Your task to perform on an android device: turn on the 24-hour format for clock Image 0: 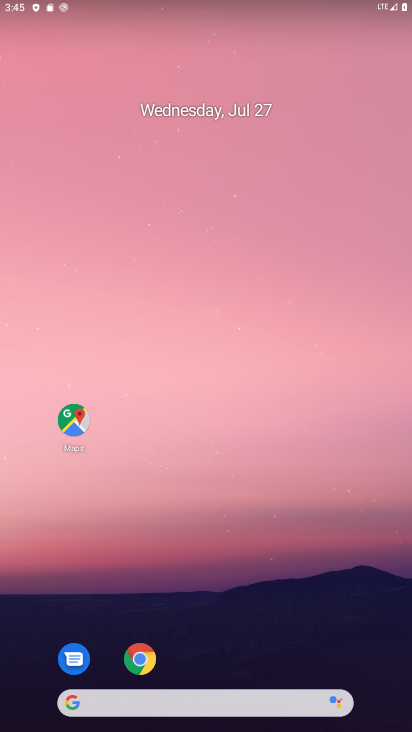
Step 0: drag from (246, 677) to (283, 19)
Your task to perform on an android device: turn on the 24-hour format for clock Image 1: 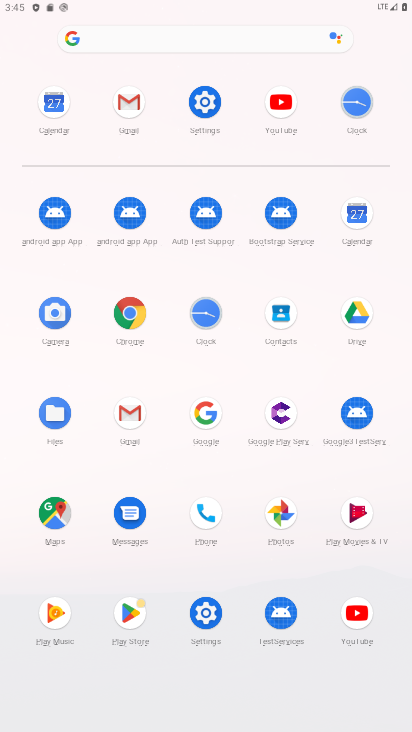
Step 1: click (356, 109)
Your task to perform on an android device: turn on the 24-hour format for clock Image 2: 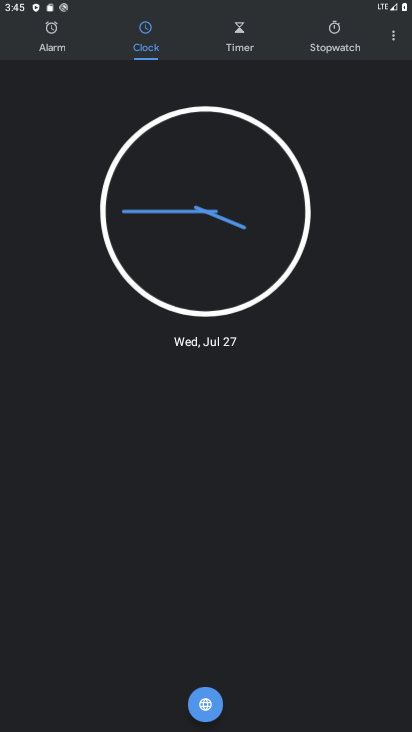
Step 2: click (389, 44)
Your task to perform on an android device: turn on the 24-hour format for clock Image 3: 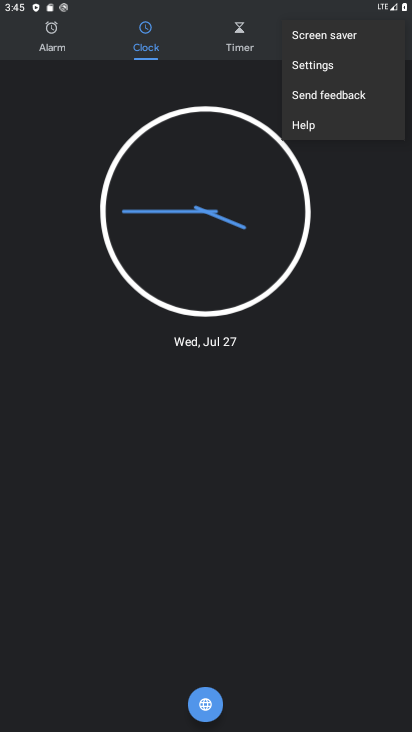
Step 3: click (318, 73)
Your task to perform on an android device: turn on the 24-hour format for clock Image 4: 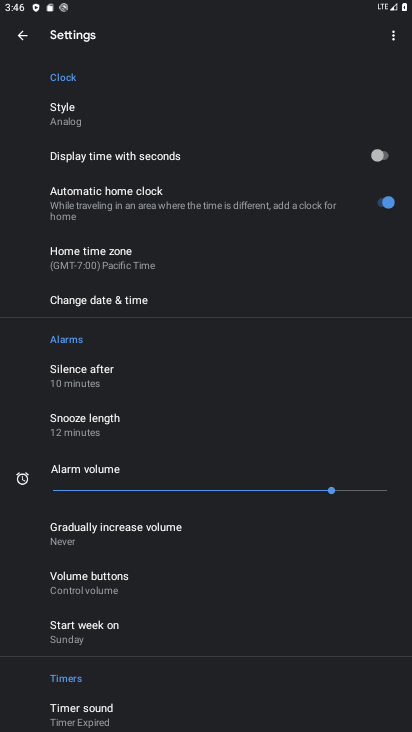
Step 4: click (117, 304)
Your task to perform on an android device: turn on the 24-hour format for clock Image 5: 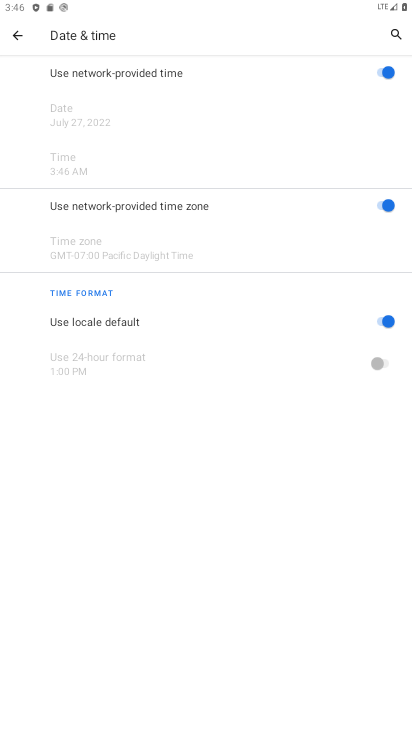
Step 5: click (389, 320)
Your task to perform on an android device: turn on the 24-hour format for clock Image 6: 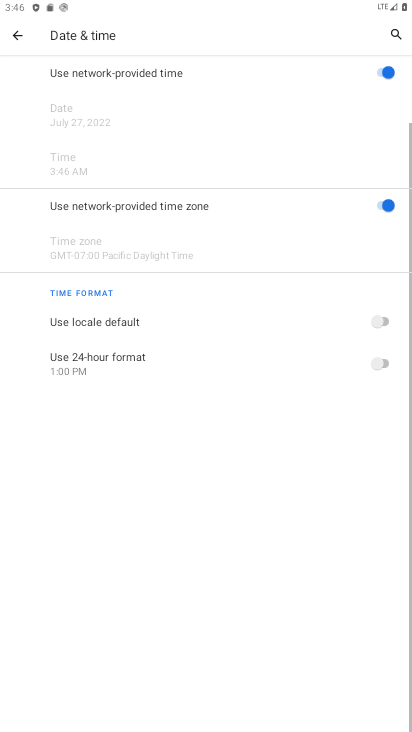
Step 6: click (378, 366)
Your task to perform on an android device: turn on the 24-hour format for clock Image 7: 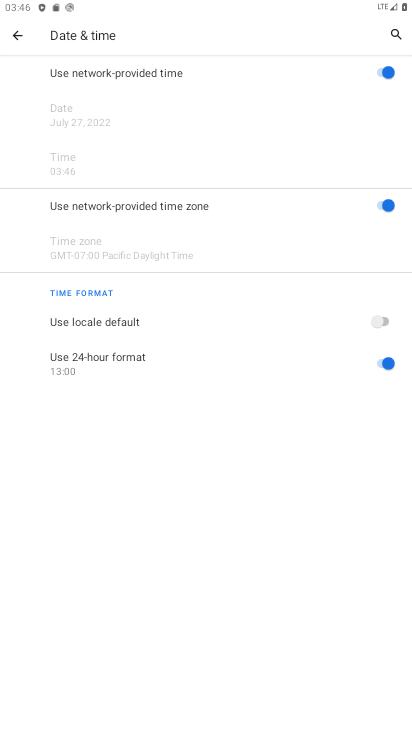
Step 7: task complete